Your task to perform on an android device: change the clock display to show seconds Image 0: 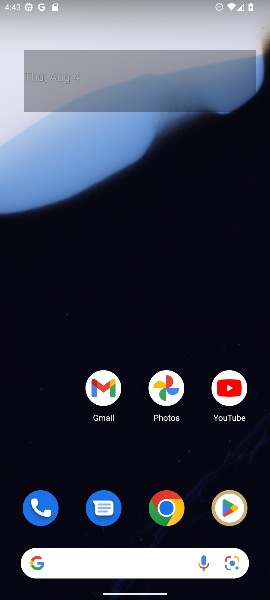
Step 0: drag from (120, 481) to (235, 111)
Your task to perform on an android device: change the clock display to show seconds Image 1: 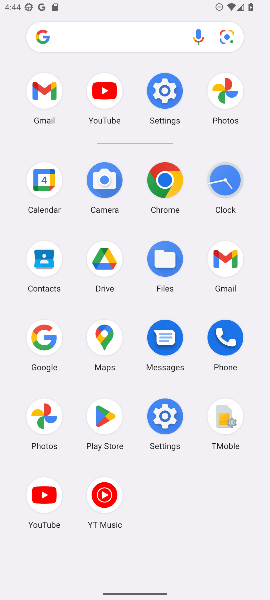
Step 1: click (216, 173)
Your task to perform on an android device: change the clock display to show seconds Image 2: 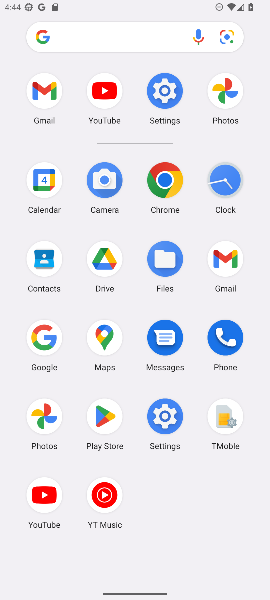
Step 2: click (214, 174)
Your task to perform on an android device: change the clock display to show seconds Image 3: 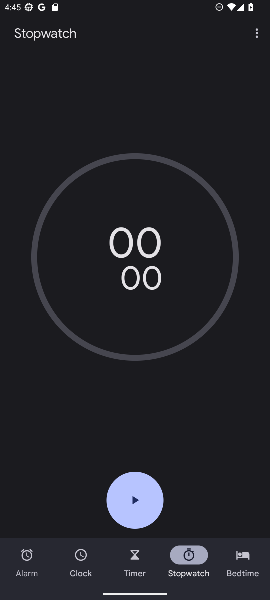
Step 3: click (250, 35)
Your task to perform on an android device: change the clock display to show seconds Image 4: 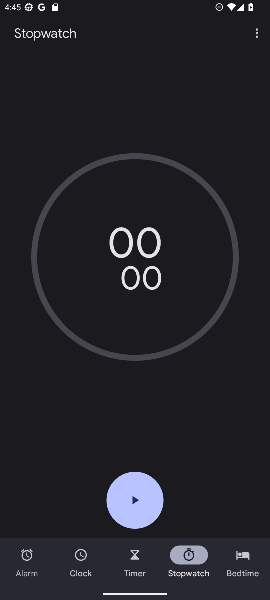
Step 4: click (194, 89)
Your task to perform on an android device: change the clock display to show seconds Image 5: 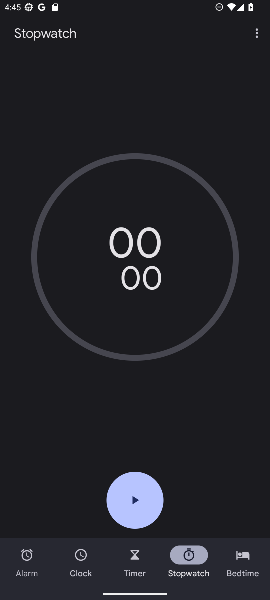
Step 5: click (249, 38)
Your task to perform on an android device: change the clock display to show seconds Image 6: 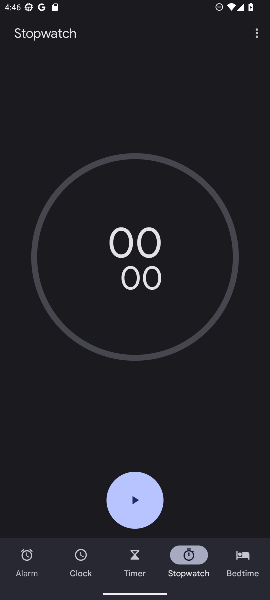
Step 6: drag from (196, 393) to (266, 64)
Your task to perform on an android device: change the clock display to show seconds Image 7: 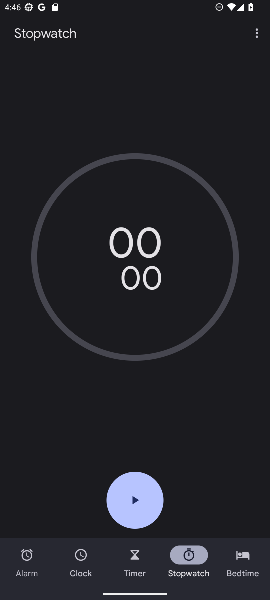
Step 7: click (250, 24)
Your task to perform on an android device: change the clock display to show seconds Image 8: 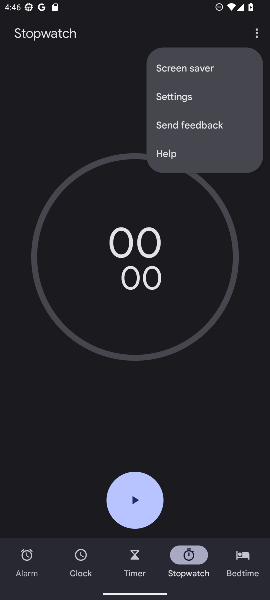
Step 8: click (187, 88)
Your task to perform on an android device: change the clock display to show seconds Image 9: 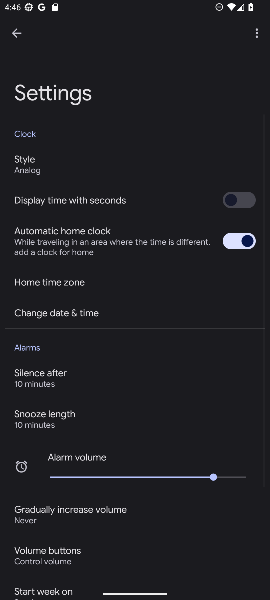
Step 9: click (242, 197)
Your task to perform on an android device: change the clock display to show seconds Image 10: 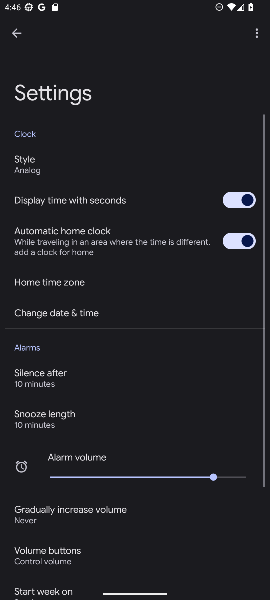
Step 10: task complete